Your task to perform on an android device: Empty the shopping cart on bestbuy.com. Search for lenovo thinkpad on bestbuy.com, select the first entry, add it to the cart, then select checkout. Image 0: 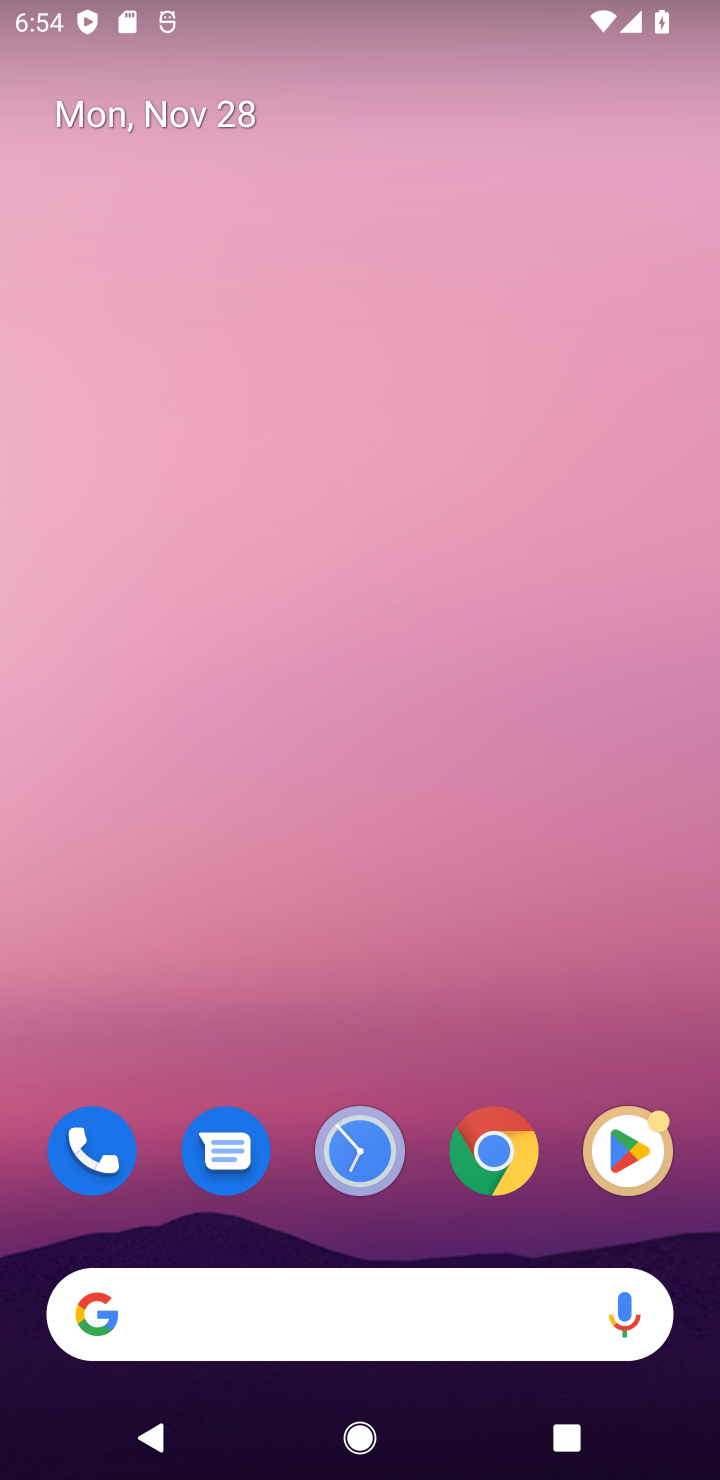
Step 0: click (402, 1341)
Your task to perform on an android device: Empty the shopping cart on bestbuy.com. Search for lenovo thinkpad on bestbuy.com, select the first entry, add it to the cart, then select checkout. Image 1: 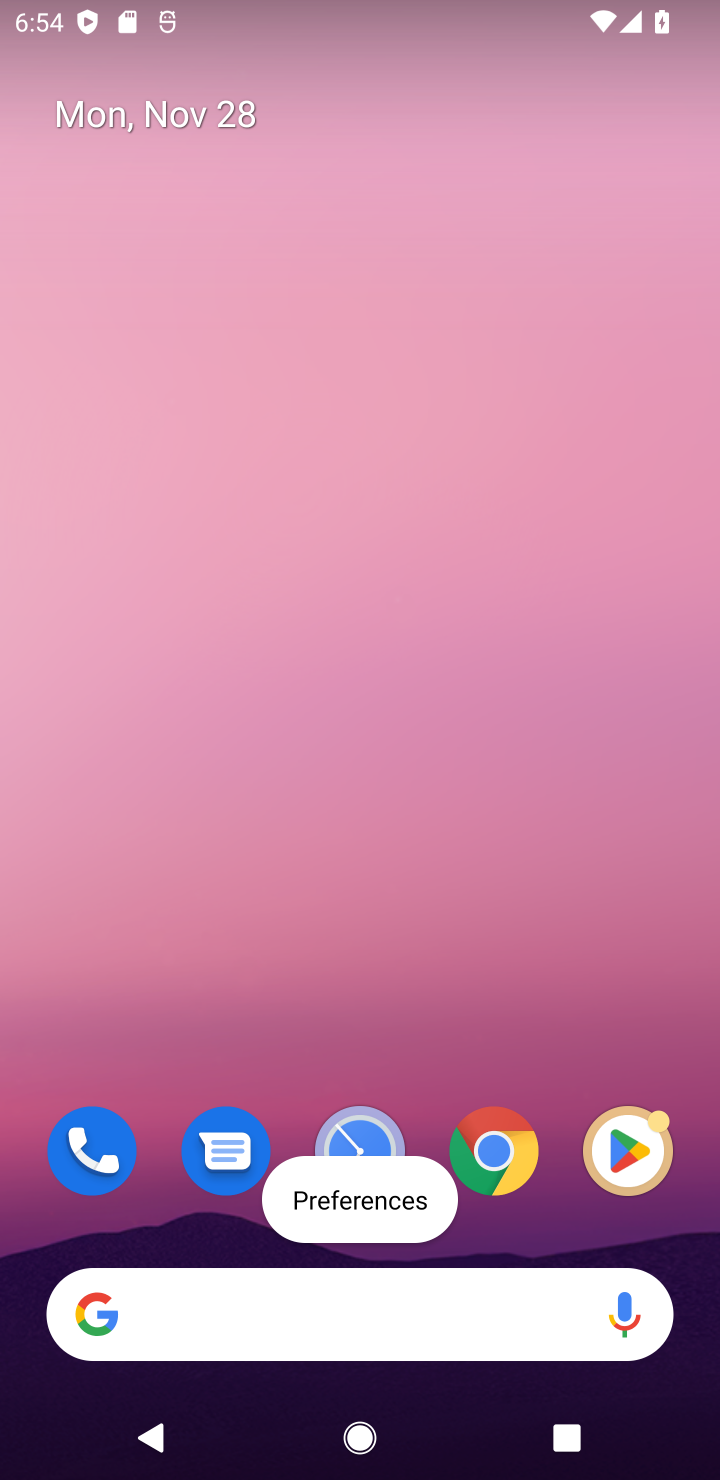
Step 1: type "bestbuy"
Your task to perform on an android device: Empty the shopping cart on bestbuy.com. Search for lenovo thinkpad on bestbuy.com, select the first entry, add it to the cart, then select checkout. Image 2: 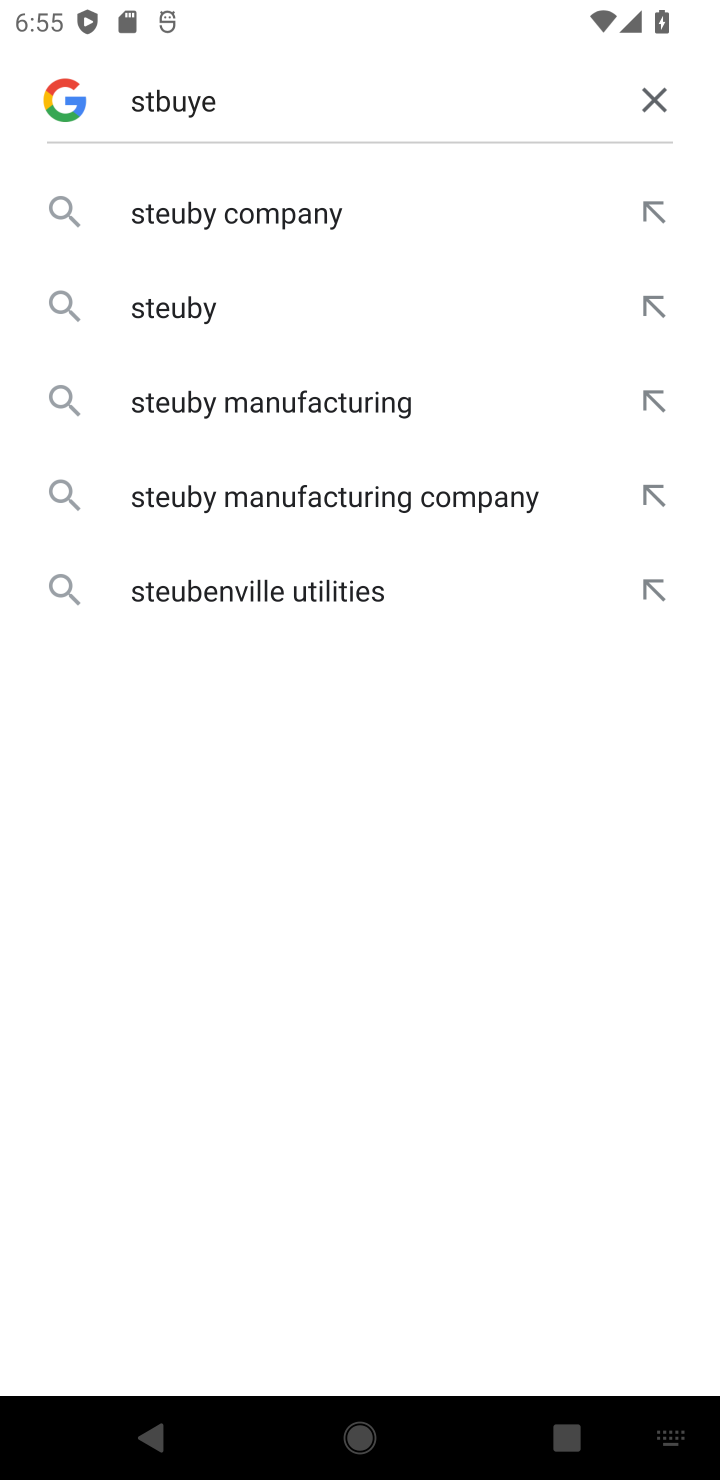
Step 2: click (266, 225)
Your task to perform on an android device: Empty the shopping cart on bestbuy.com. Search for lenovo thinkpad on bestbuy.com, select the first entry, add it to the cart, then select checkout. Image 3: 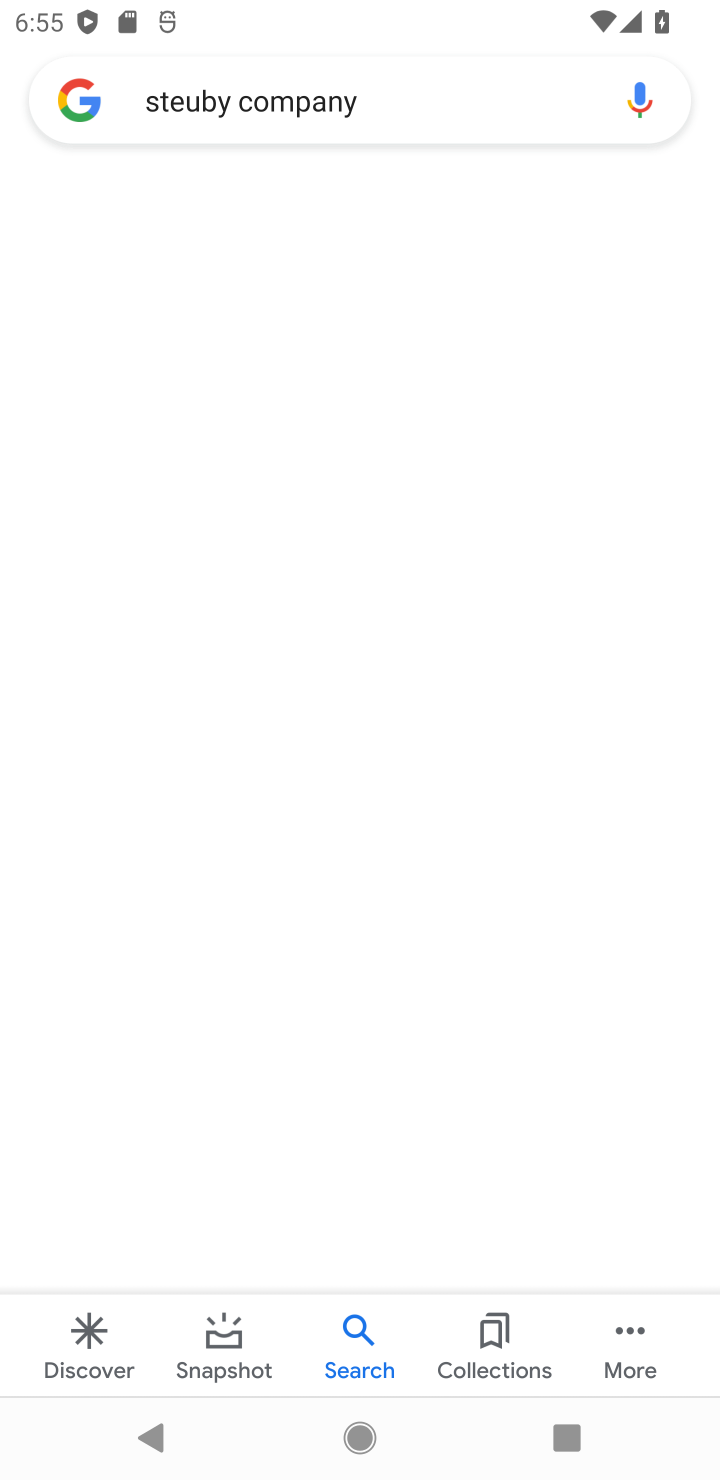
Step 3: task complete